Your task to perform on an android device: Open Google Image 0: 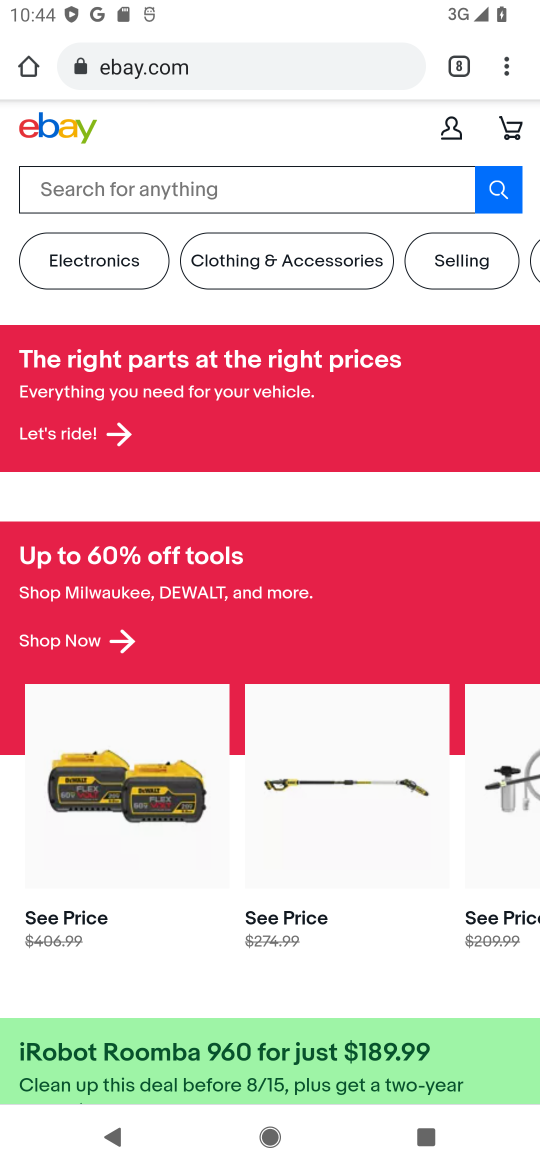
Step 0: press home button
Your task to perform on an android device: Open Google Image 1: 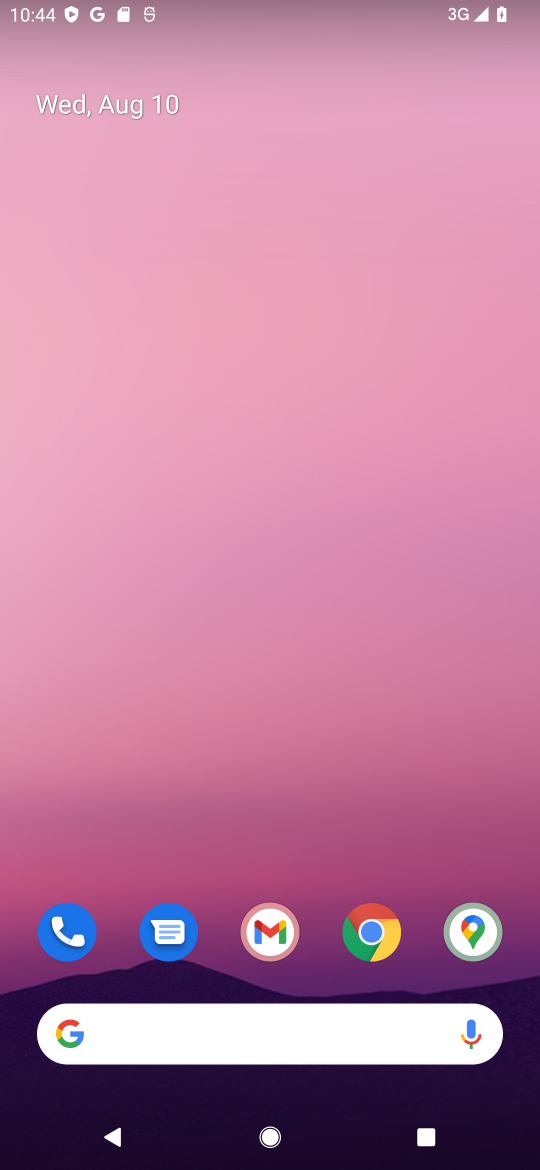
Step 1: click (373, 934)
Your task to perform on an android device: Open Google Image 2: 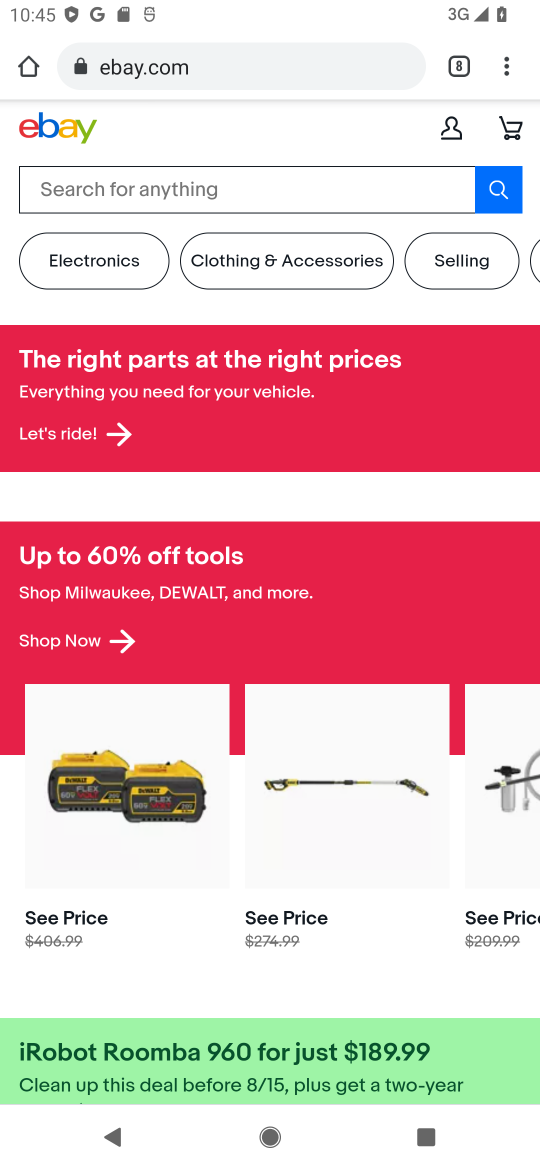
Step 2: click (23, 62)
Your task to perform on an android device: Open Google Image 3: 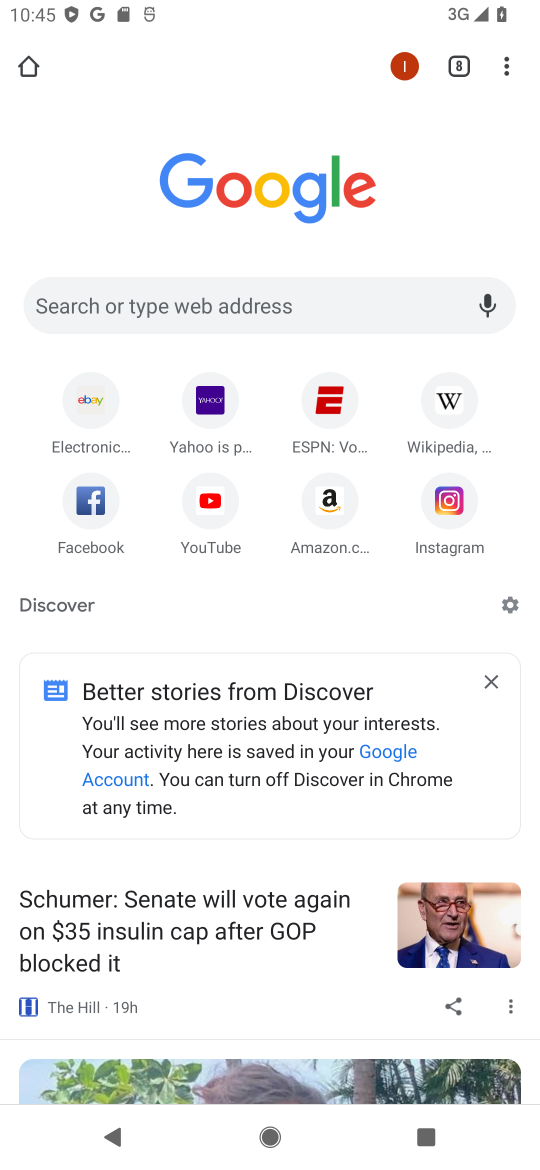
Step 3: click (207, 285)
Your task to perform on an android device: Open Google Image 4: 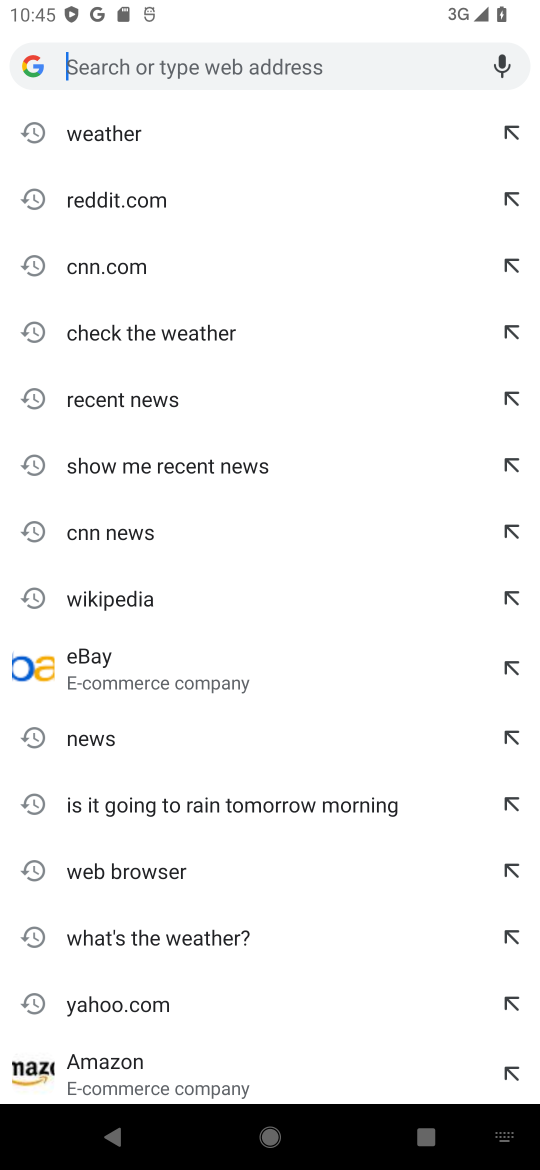
Step 4: click (30, 61)
Your task to perform on an android device: Open Google Image 5: 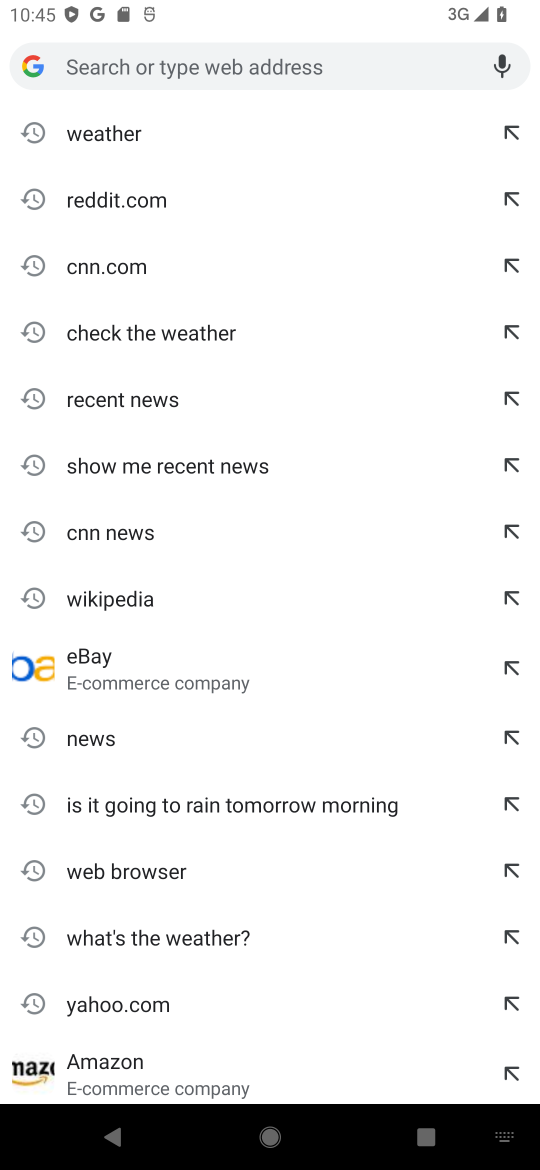
Step 5: click (32, 61)
Your task to perform on an android device: Open Google Image 6: 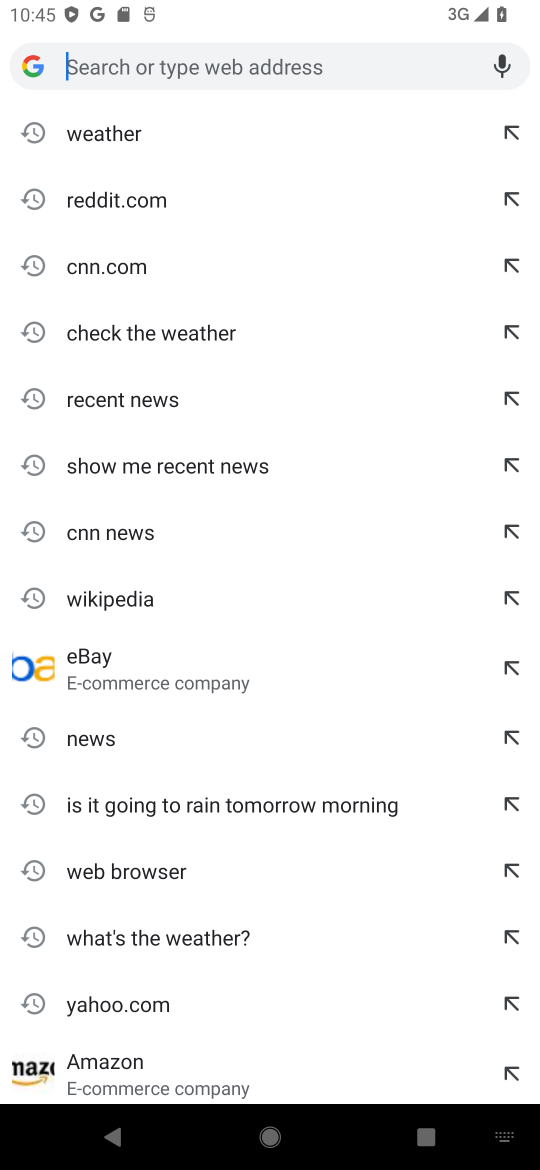
Step 6: type "google"
Your task to perform on an android device: Open Google Image 7: 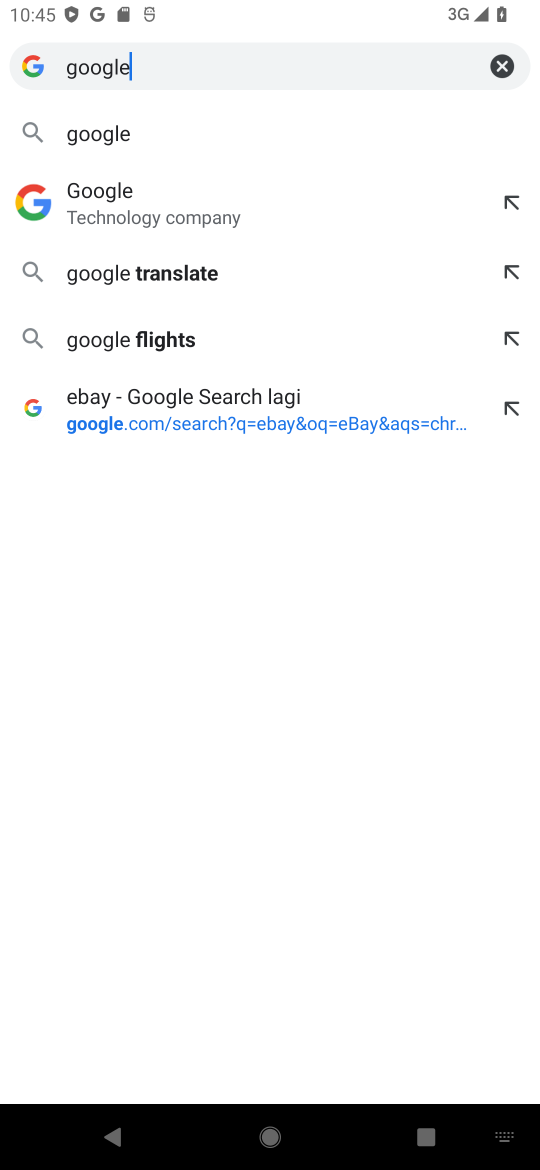
Step 7: click (93, 132)
Your task to perform on an android device: Open Google Image 8: 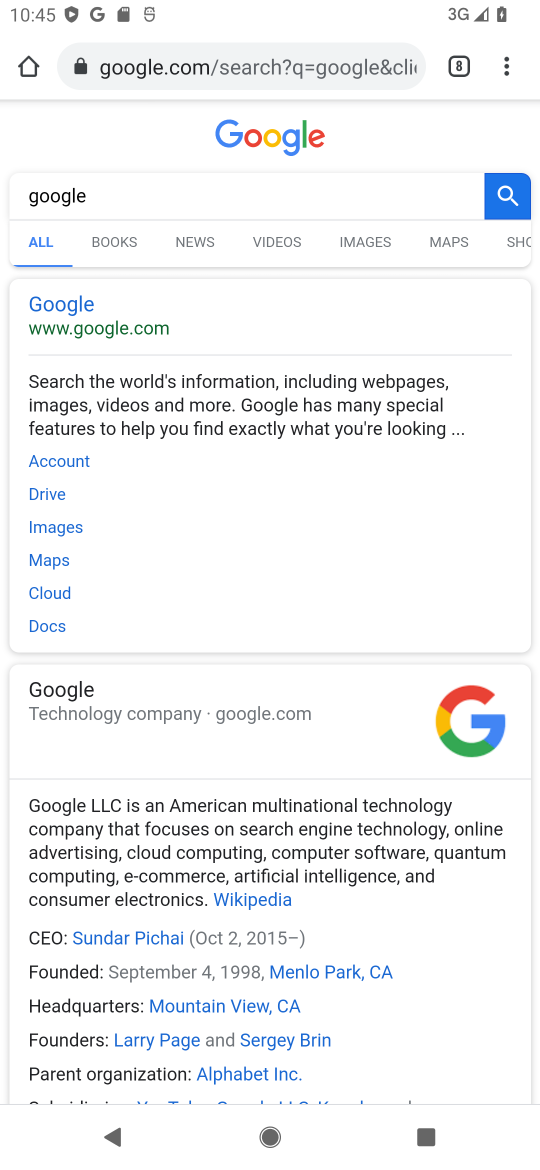
Step 8: click (59, 295)
Your task to perform on an android device: Open Google Image 9: 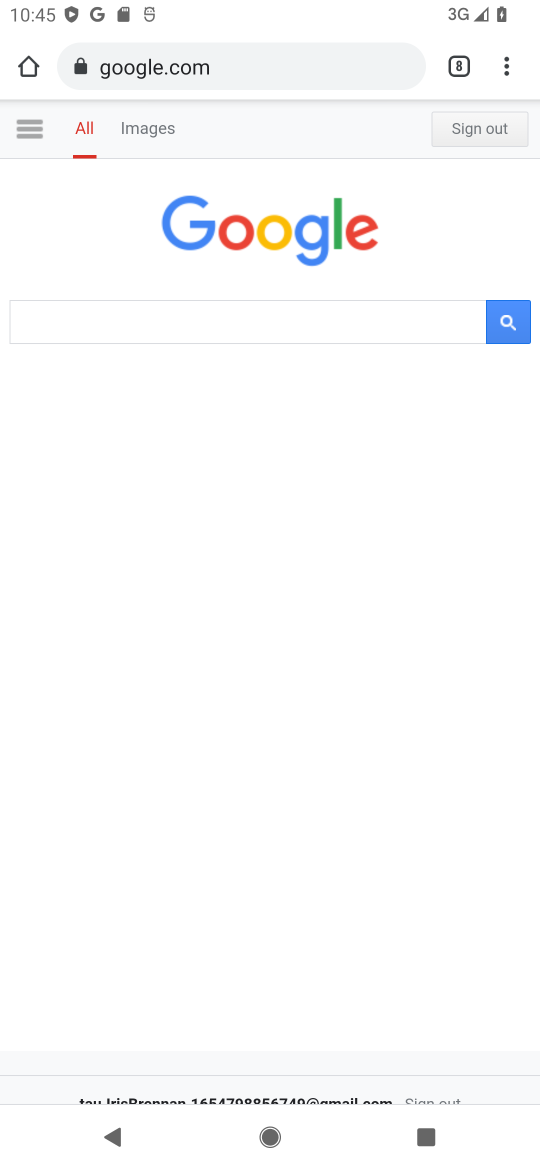
Step 9: task complete